Your task to perform on an android device: change keyboard looks Image 0: 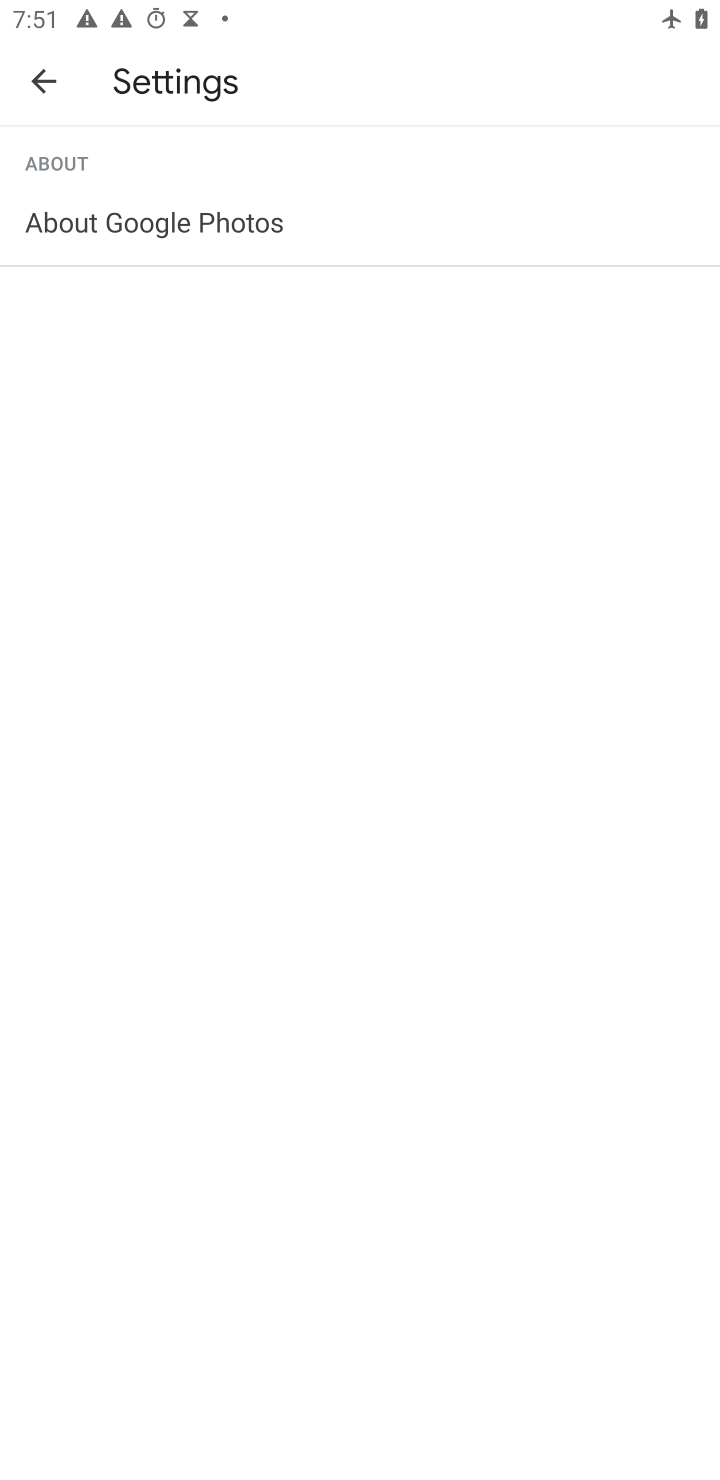
Step 0: press home button
Your task to perform on an android device: change keyboard looks Image 1: 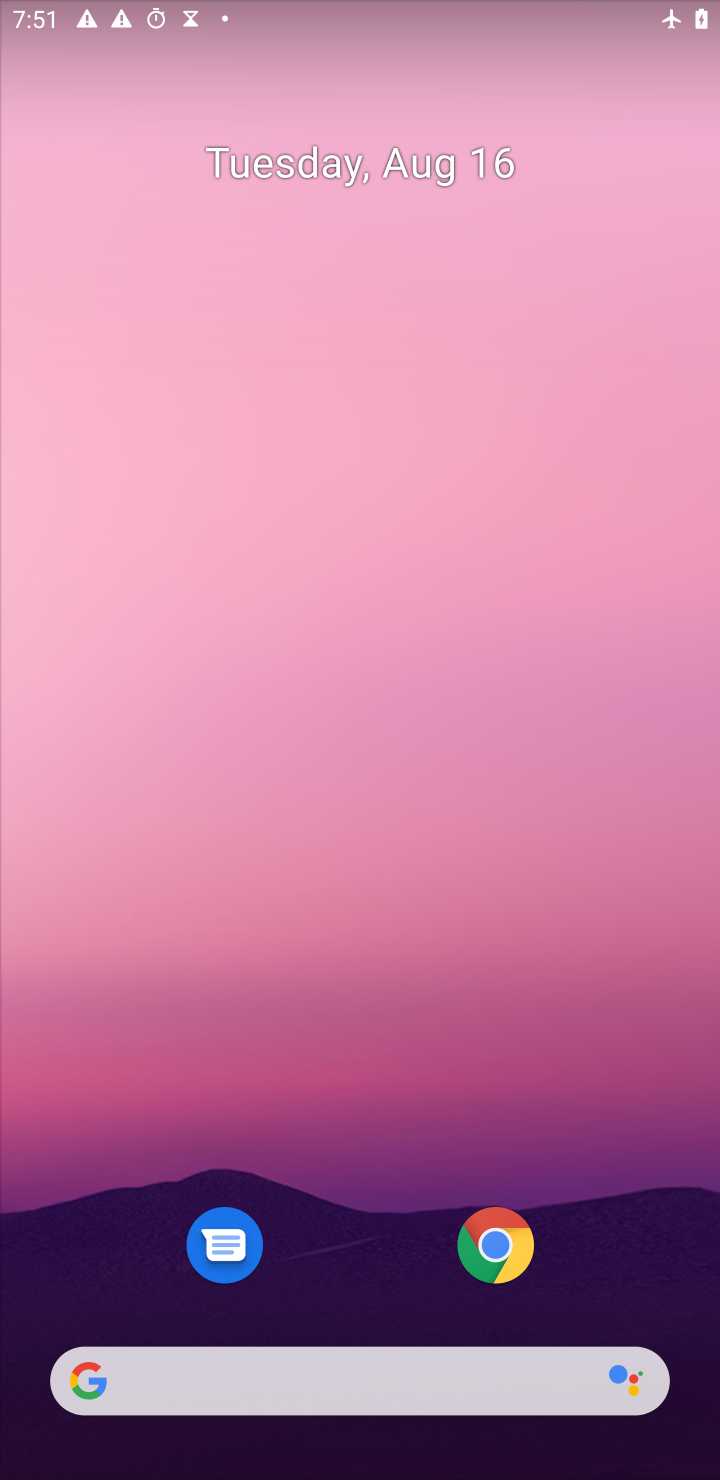
Step 1: click (316, 106)
Your task to perform on an android device: change keyboard looks Image 2: 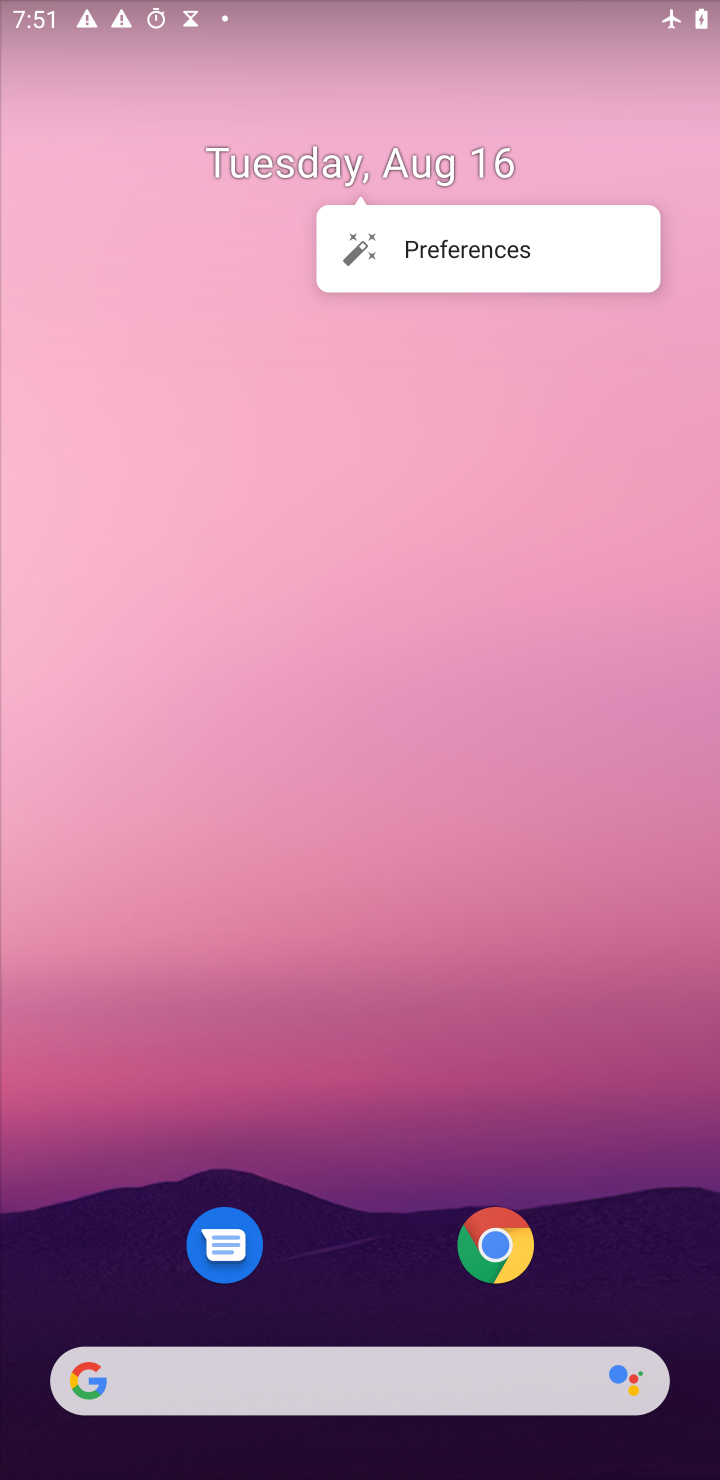
Step 2: drag from (334, 621) to (371, 111)
Your task to perform on an android device: change keyboard looks Image 3: 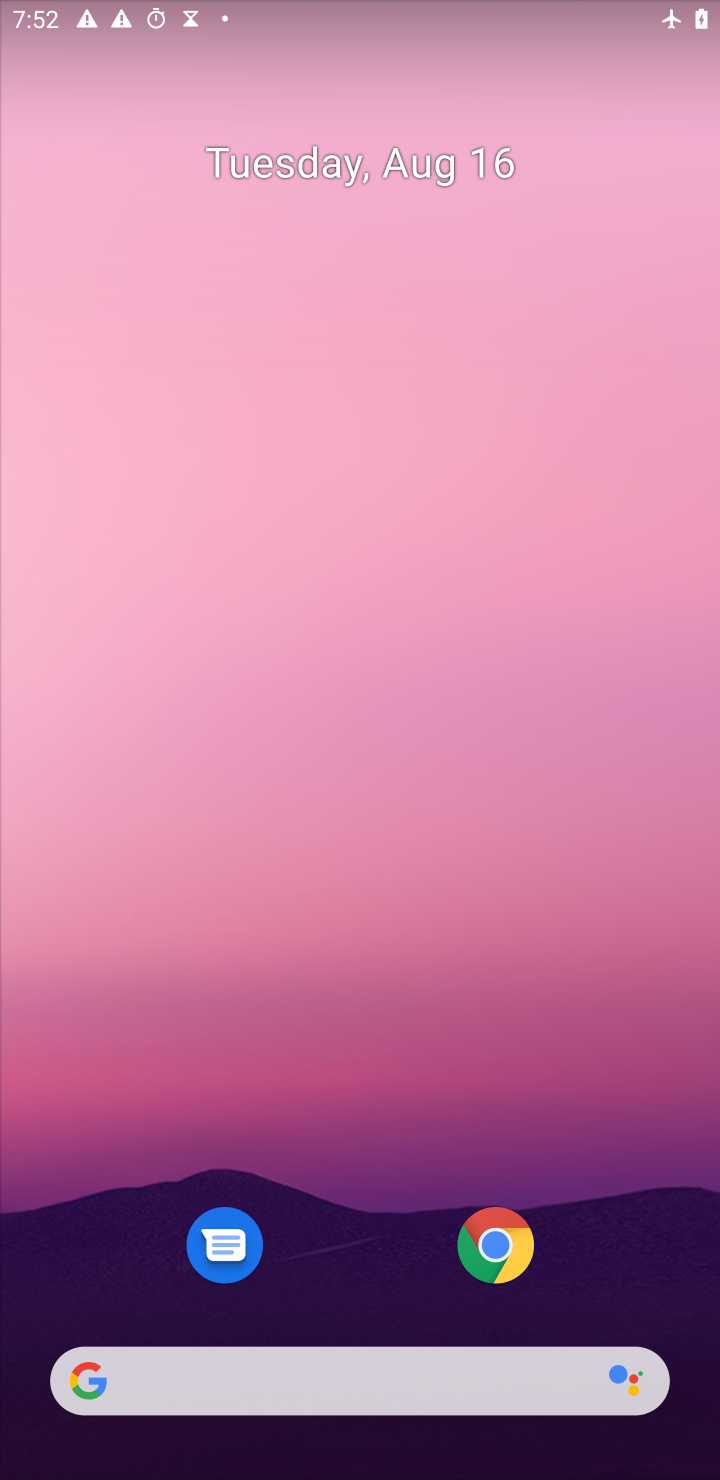
Step 3: click (344, 145)
Your task to perform on an android device: change keyboard looks Image 4: 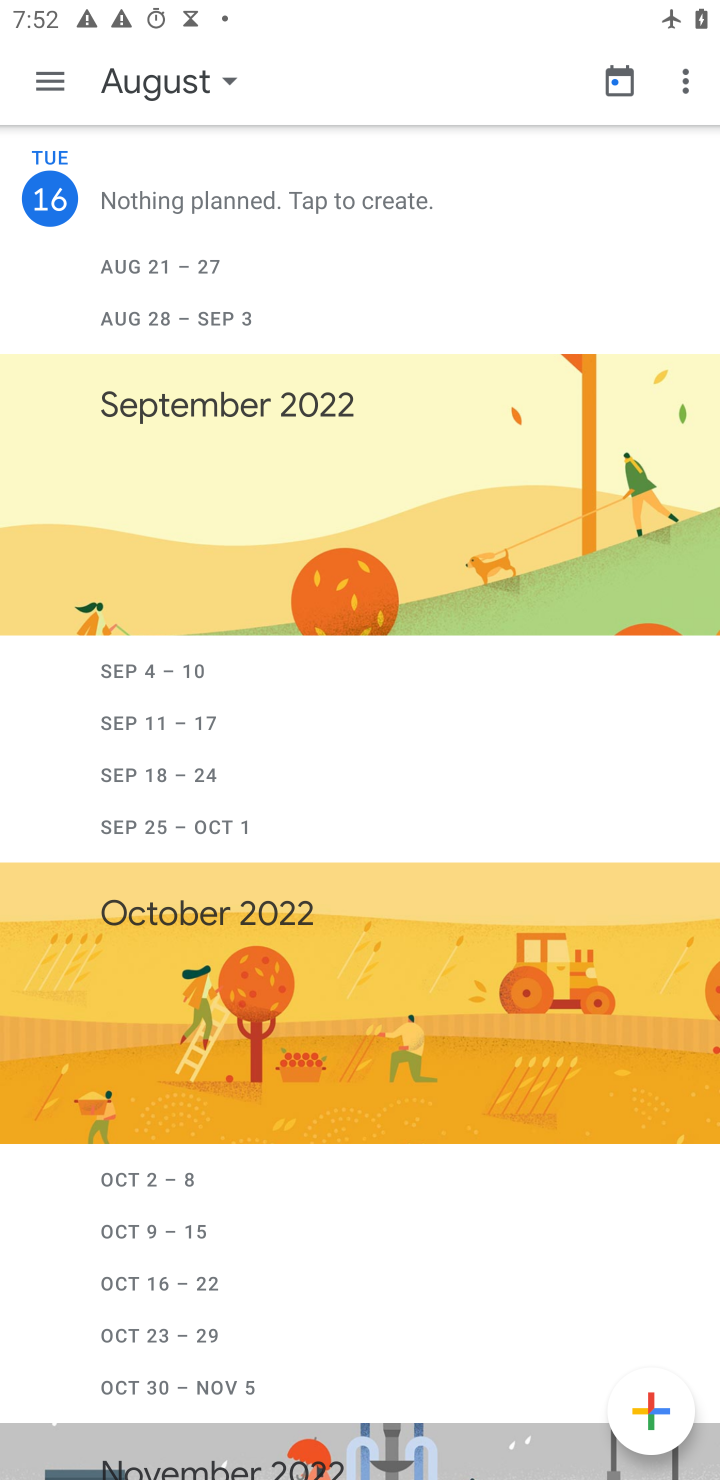
Step 4: press home button
Your task to perform on an android device: change keyboard looks Image 5: 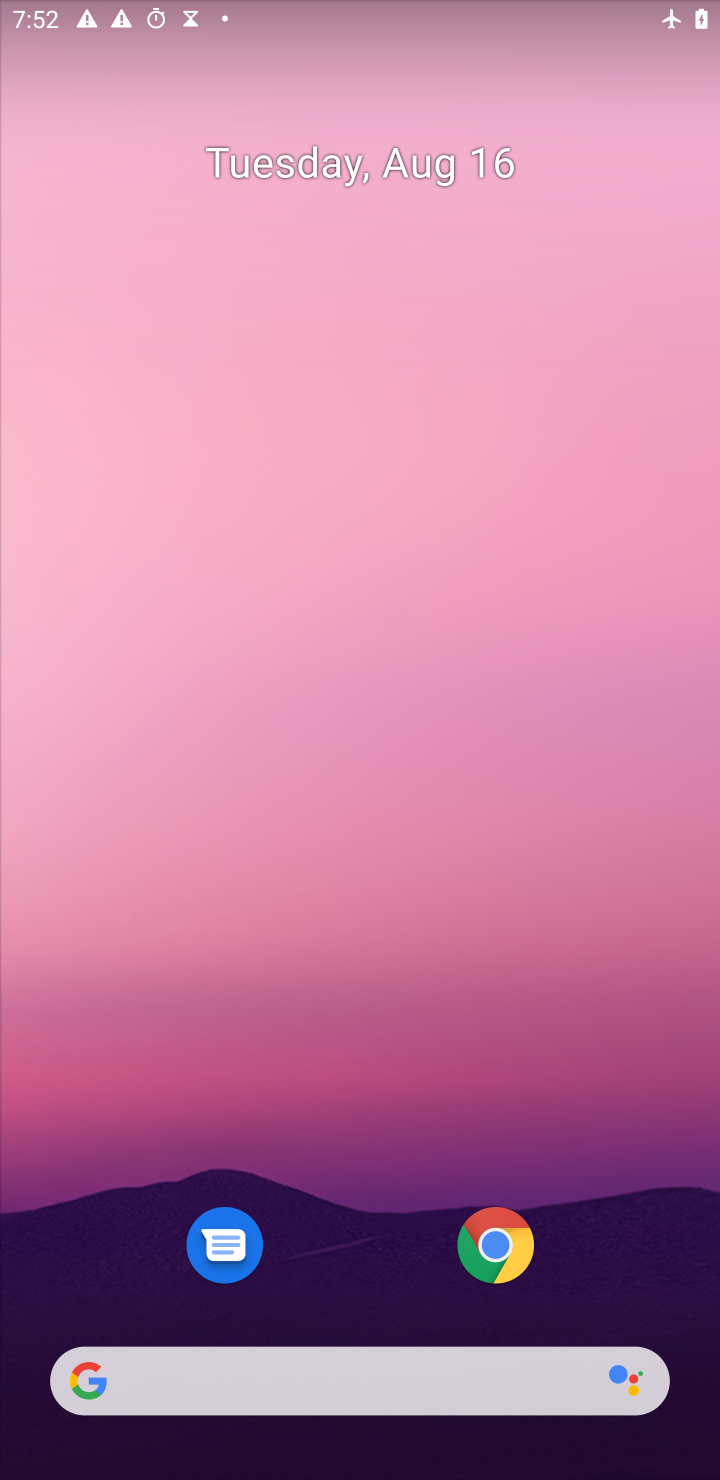
Step 5: drag from (377, 1246) to (391, 25)
Your task to perform on an android device: change keyboard looks Image 6: 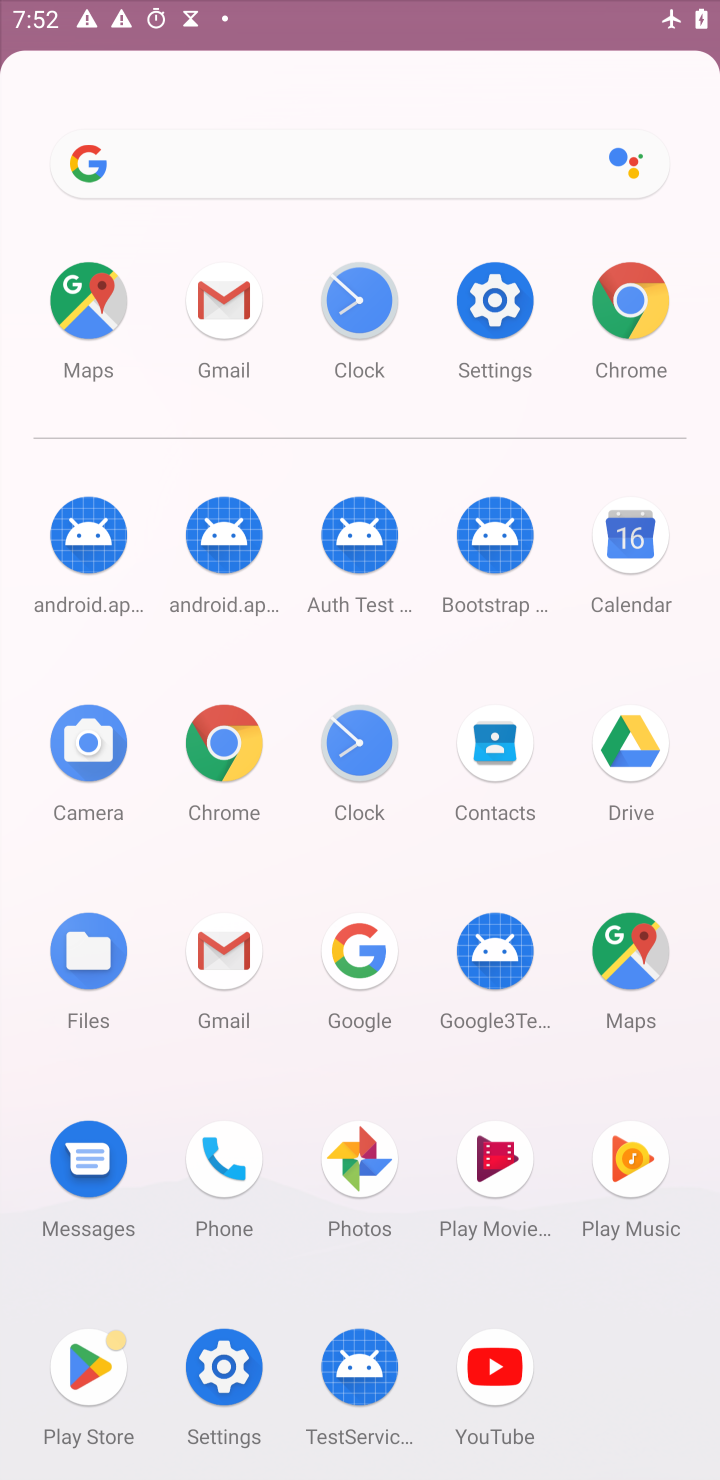
Step 6: click (491, 309)
Your task to perform on an android device: change keyboard looks Image 7: 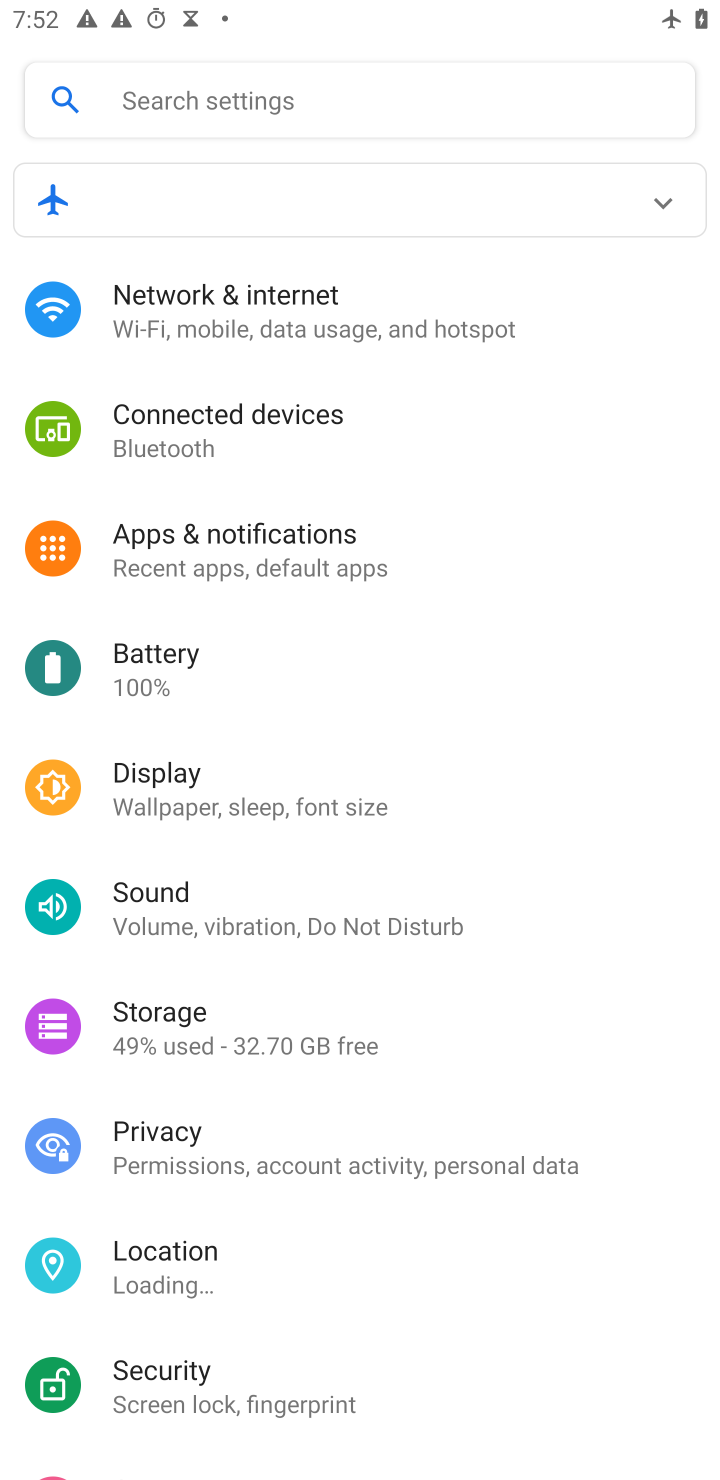
Step 7: drag from (187, 1315) to (173, 226)
Your task to perform on an android device: change keyboard looks Image 8: 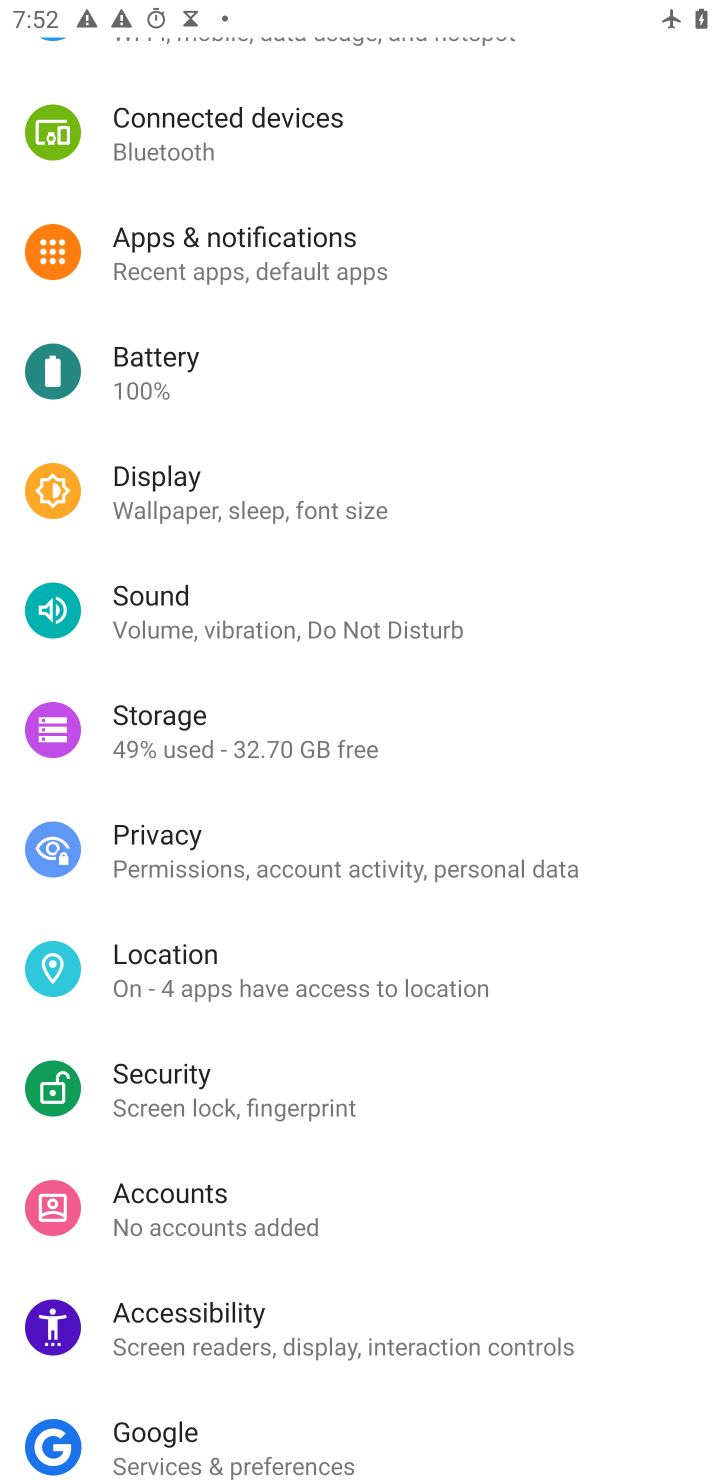
Step 8: drag from (171, 1168) to (181, 607)
Your task to perform on an android device: change keyboard looks Image 9: 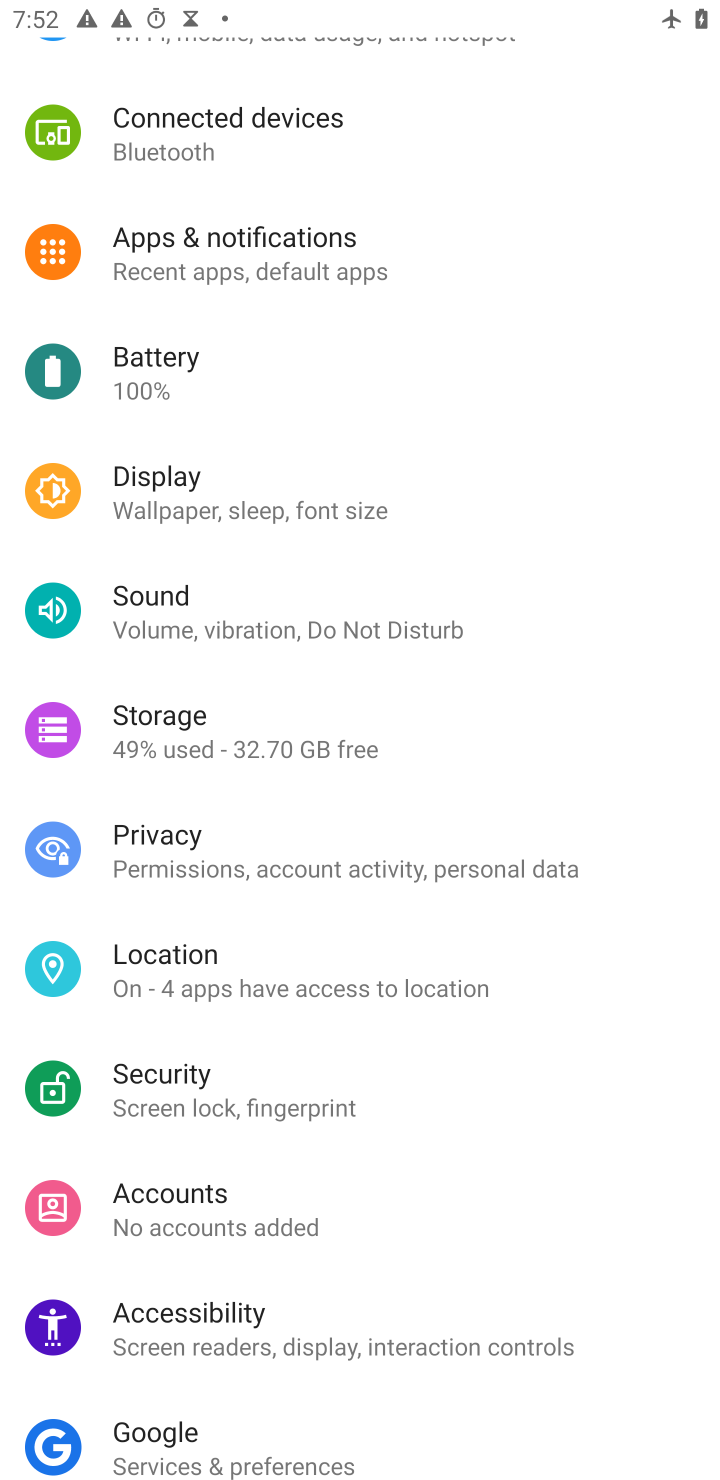
Step 9: drag from (215, 1379) to (219, 311)
Your task to perform on an android device: change keyboard looks Image 10: 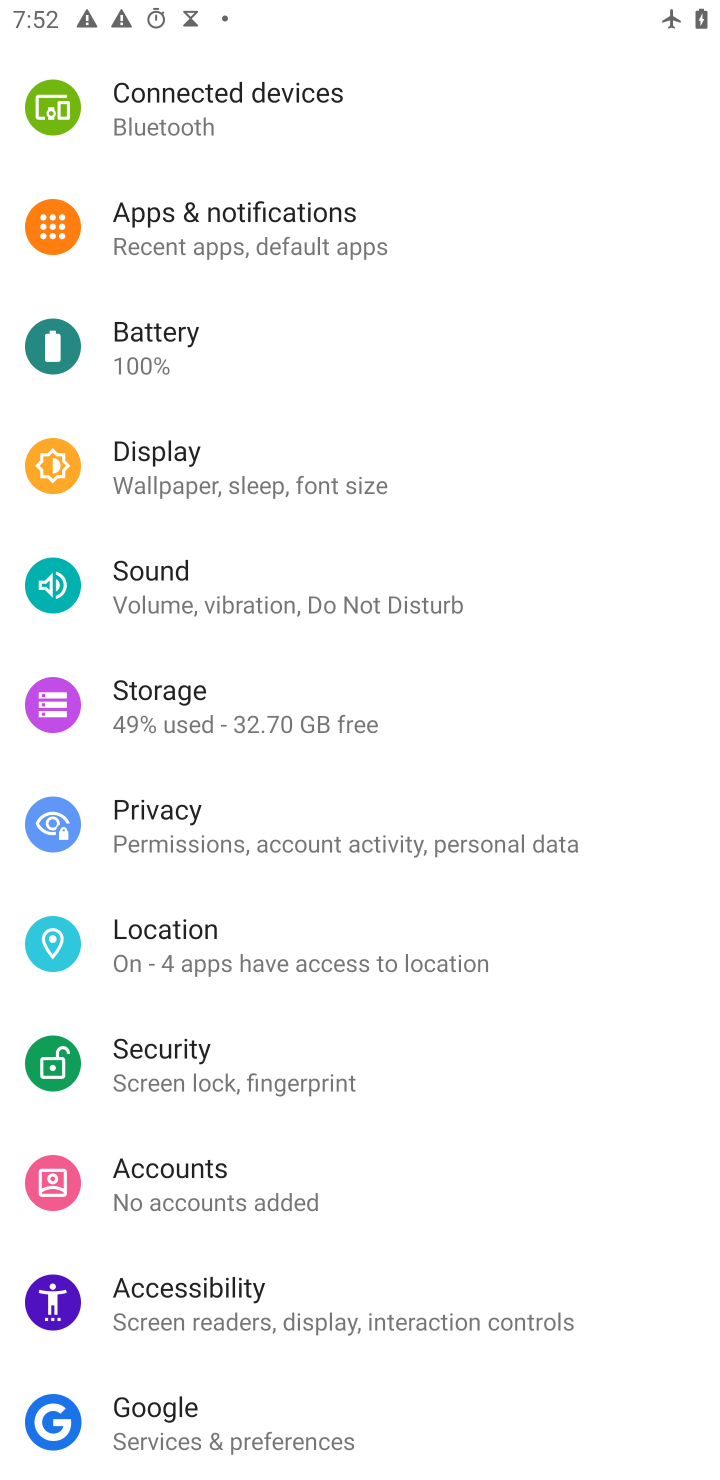
Step 10: drag from (261, 1201) to (342, 315)
Your task to perform on an android device: change keyboard looks Image 11: 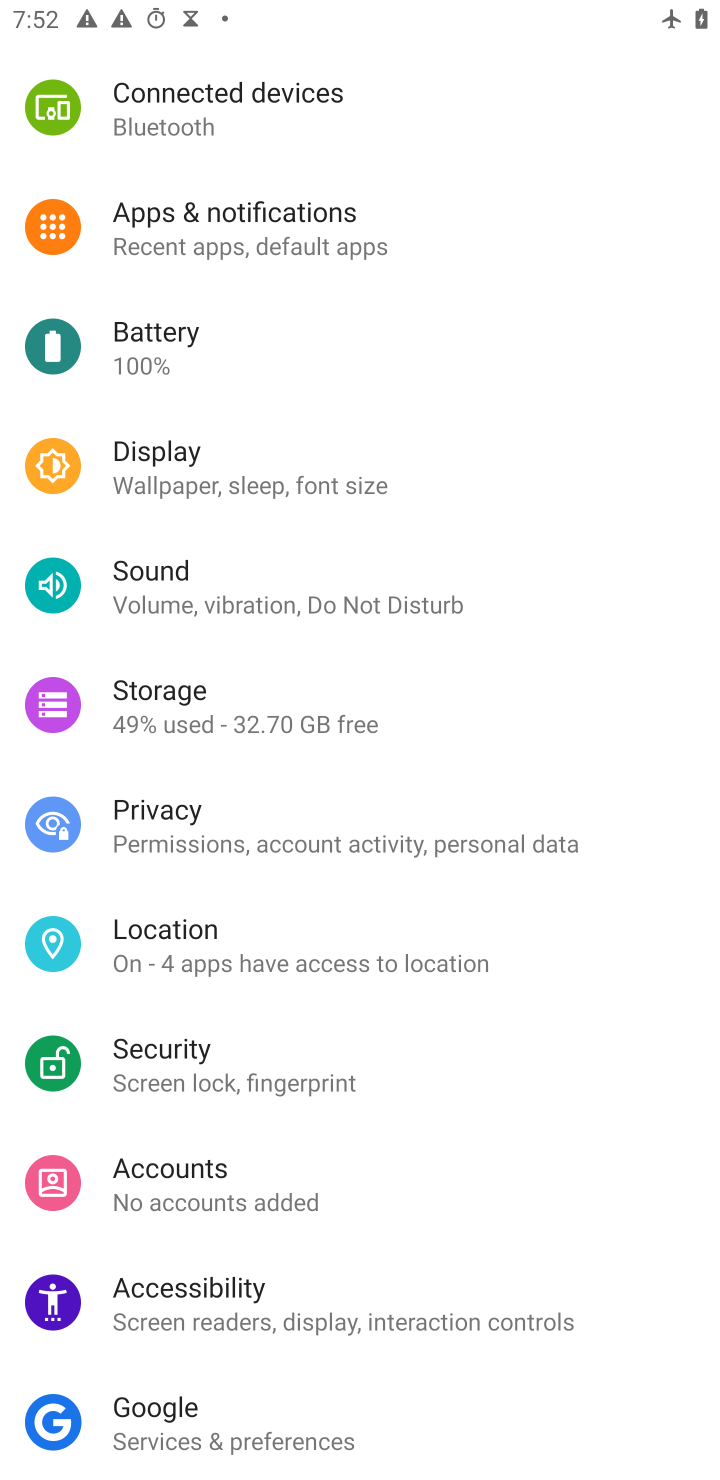
Step 11: drag from (230, 1383) to (283, 455)
Your task to perform on an android device: change keyboard looks Image 12: 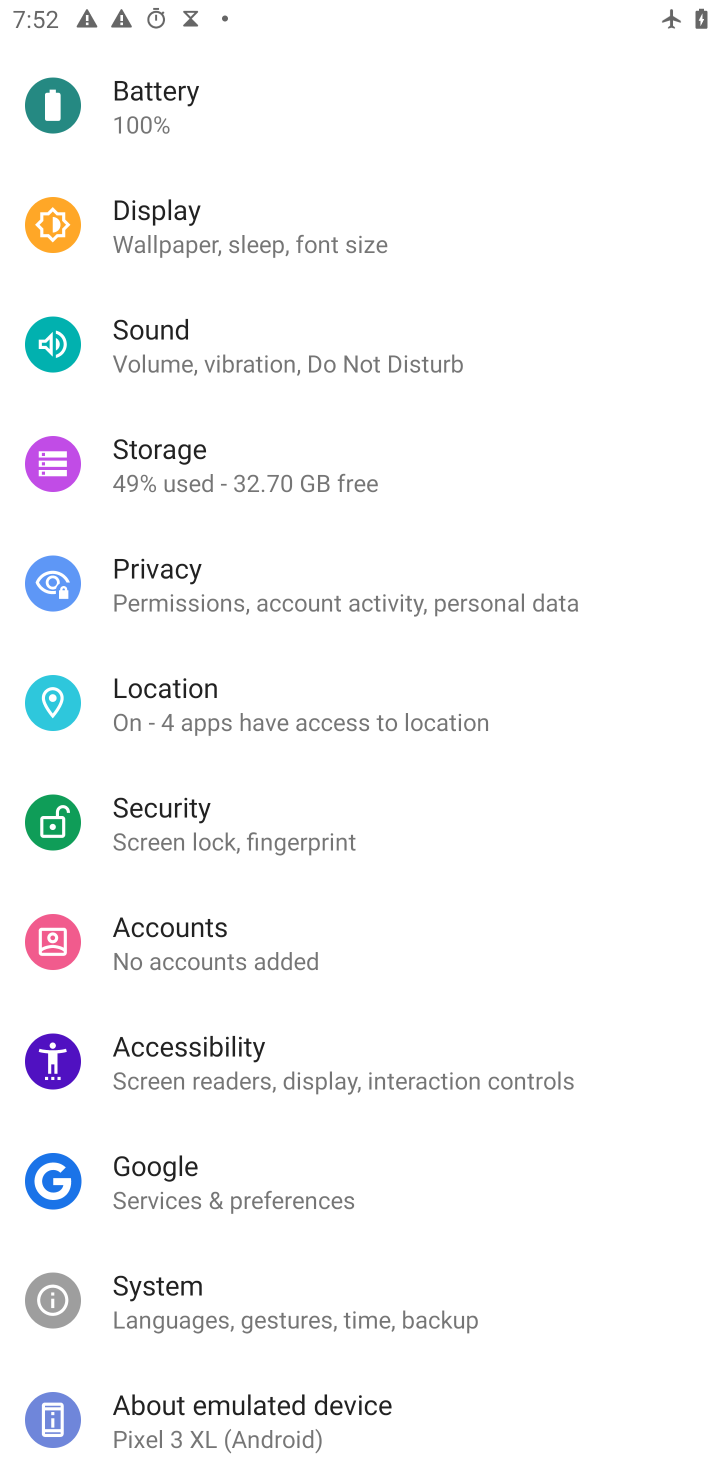
Step 12: click (157, 1312)
Your task to perform on an android device: change keyboard looks Image 13: 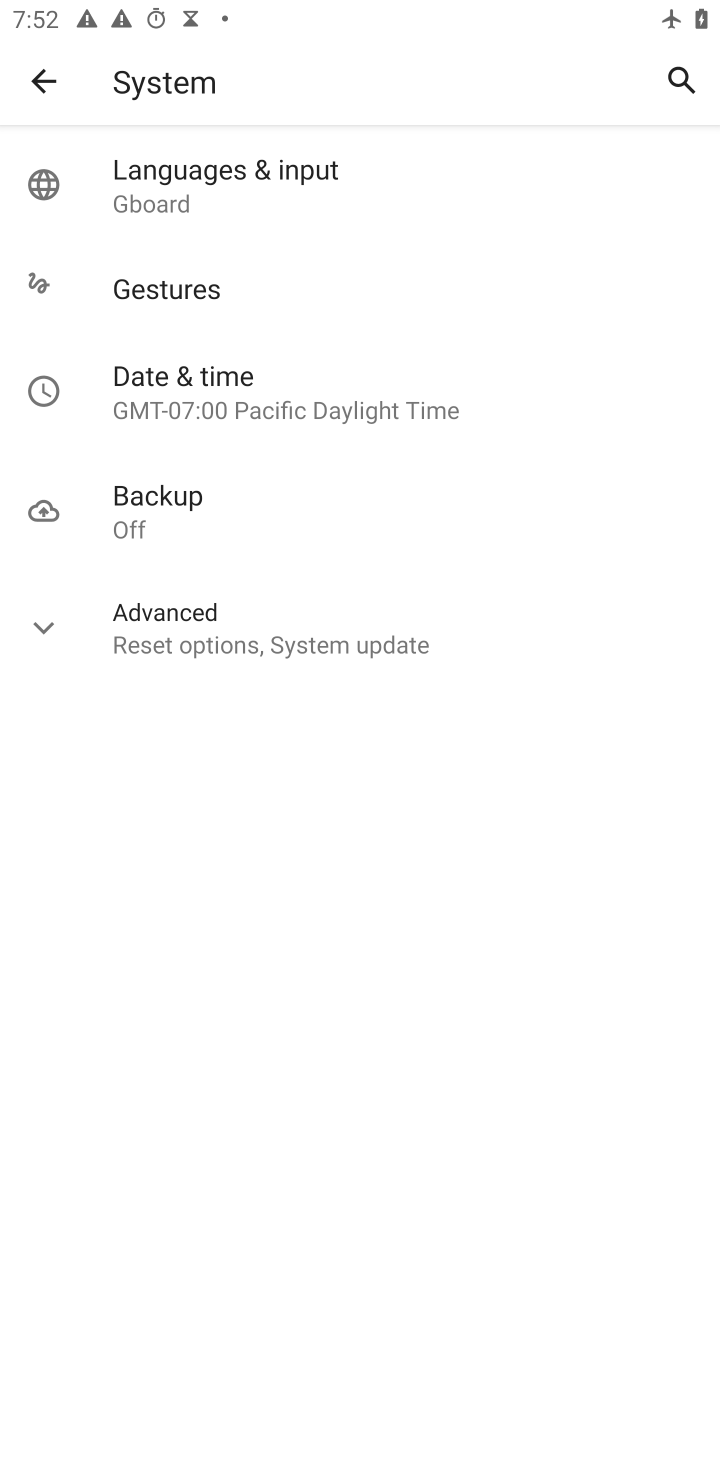
Step 13: click (184, 199)
Your task to perform on an android device: change keyboard looks Image 14: 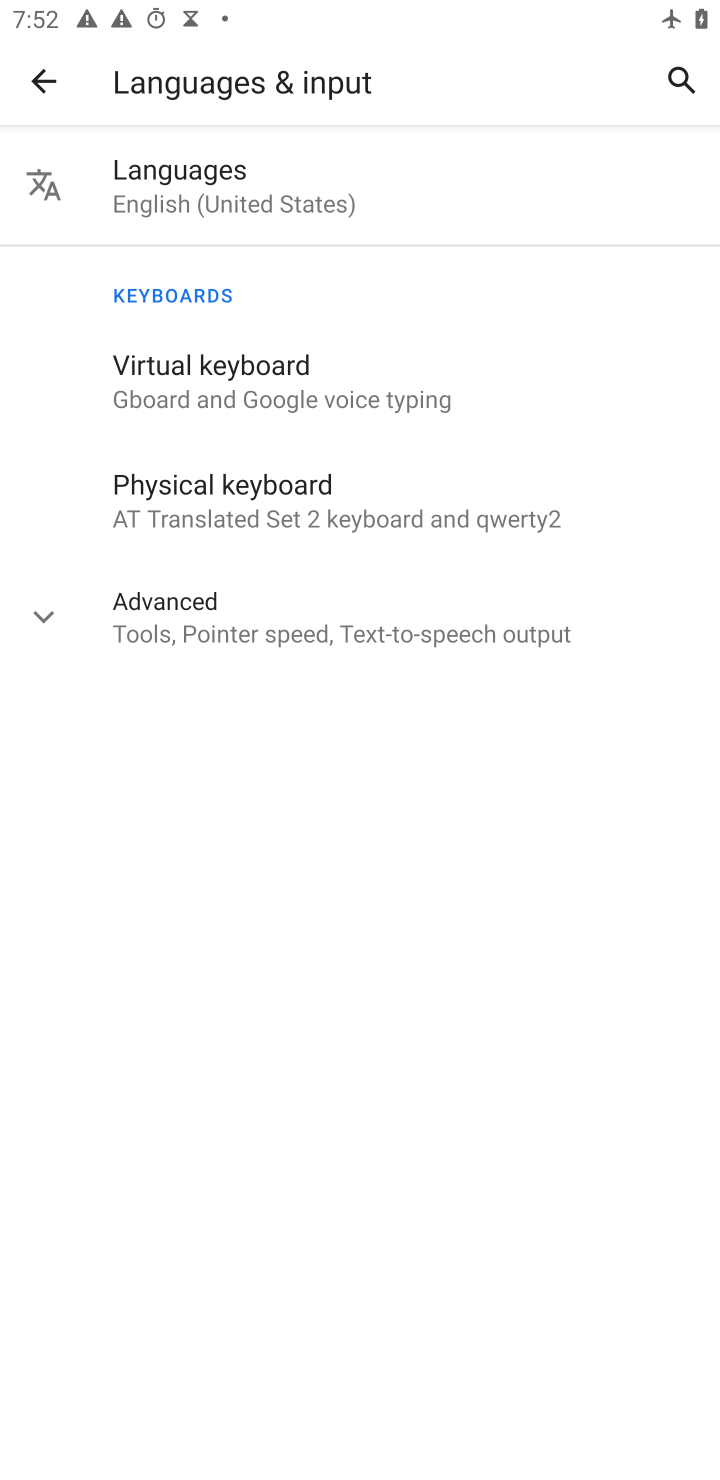
Step 14: click (202, 392)
Your task to perform on an android device: change keyboard looks Image 15: 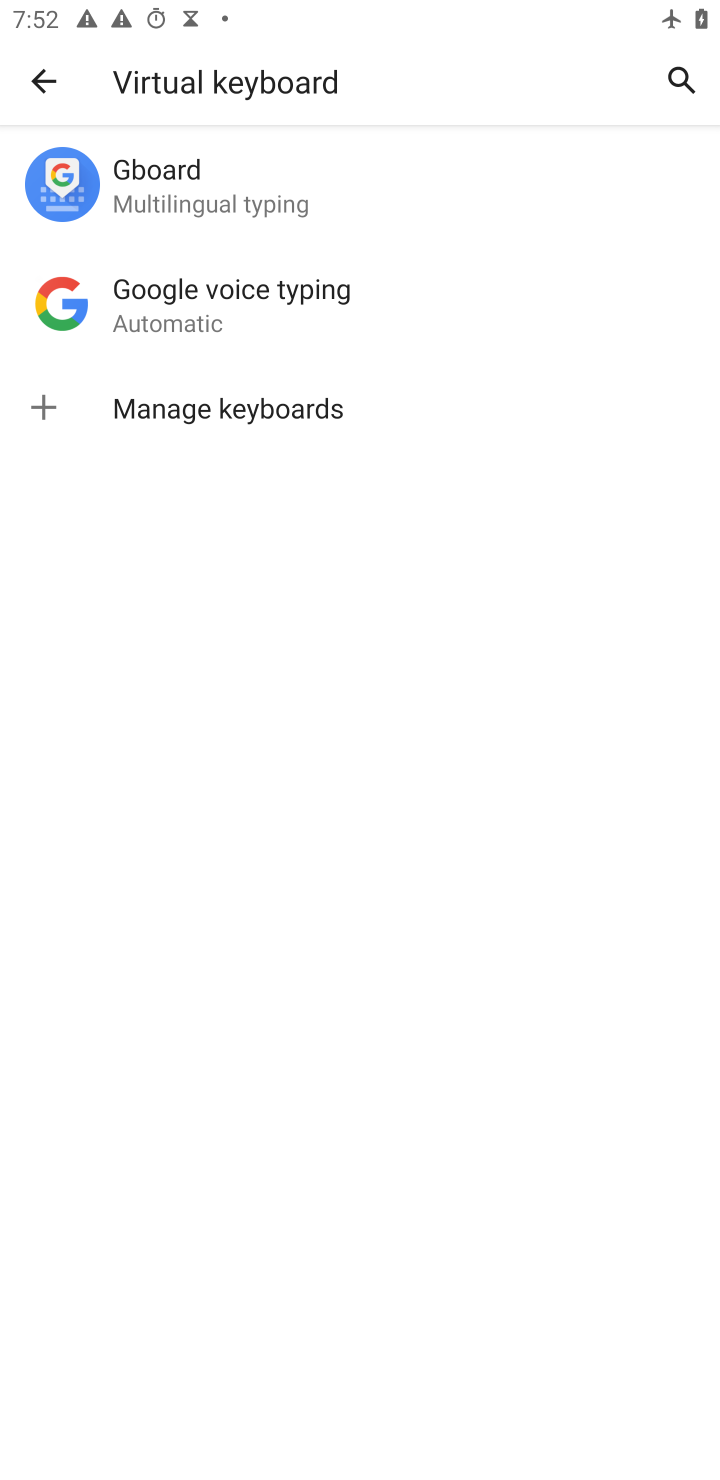
Step 15: click (128, 199)
Your task to perform on an android device: change keyboard looks Image 16: 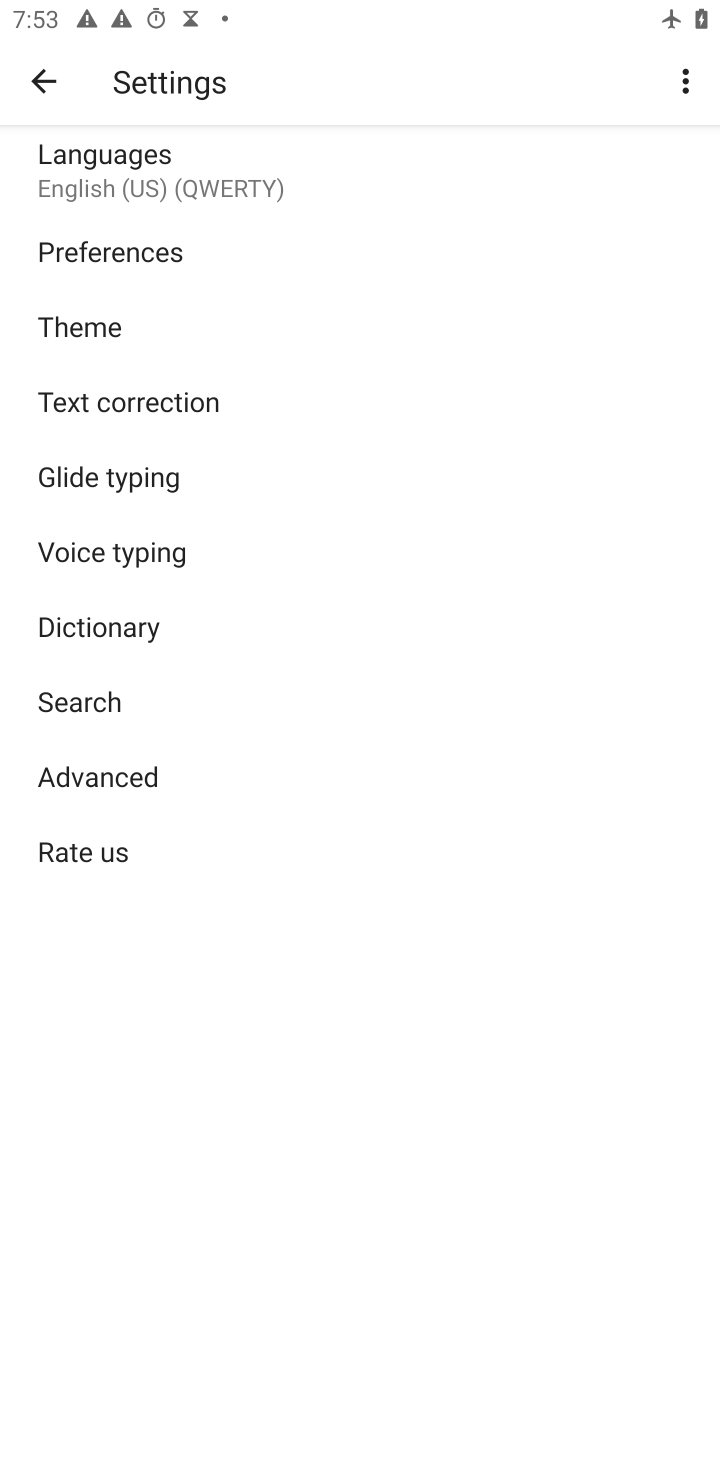
Step 16: click (71, 322)
Your task to perform on an android device: change keyboard looks Image 17: 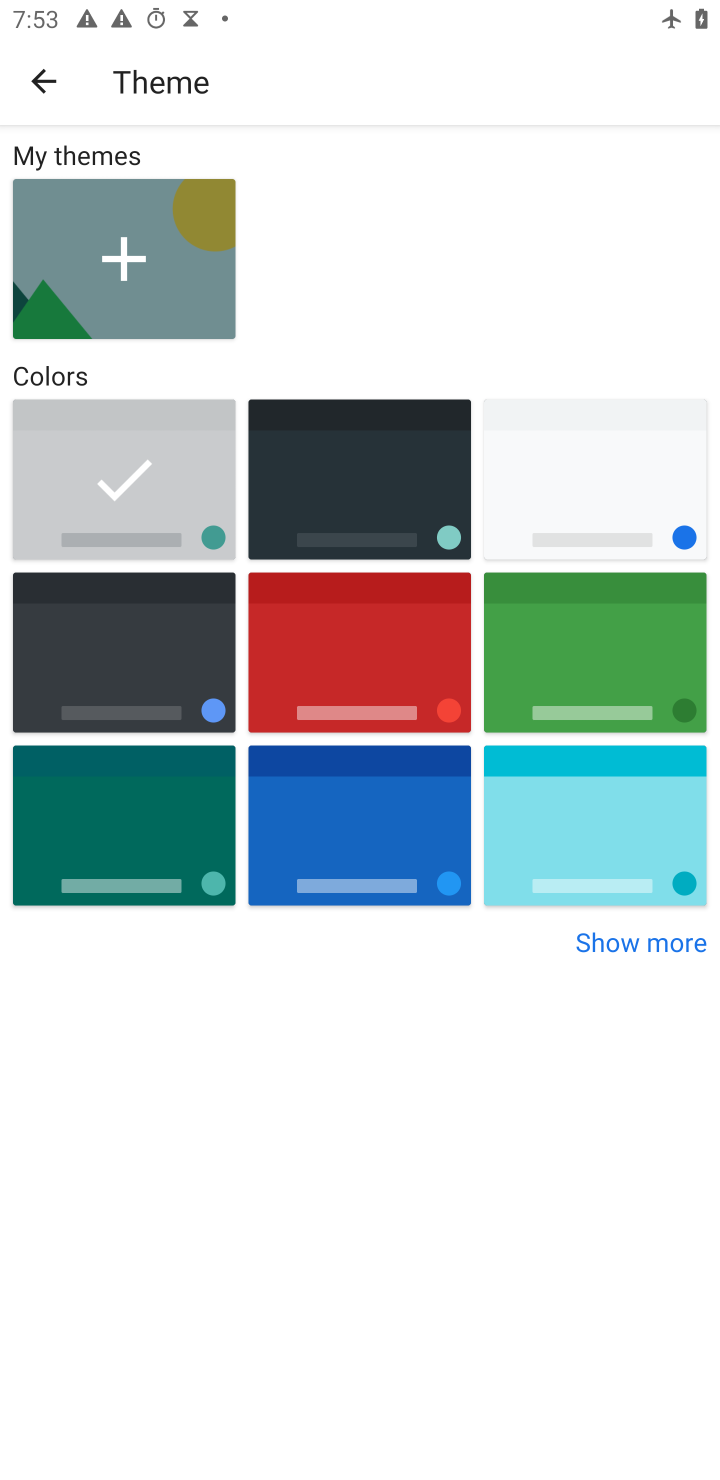
Step 17: click (343, 635)
Your task to perform on an android device: change keyboard looks Image 18: 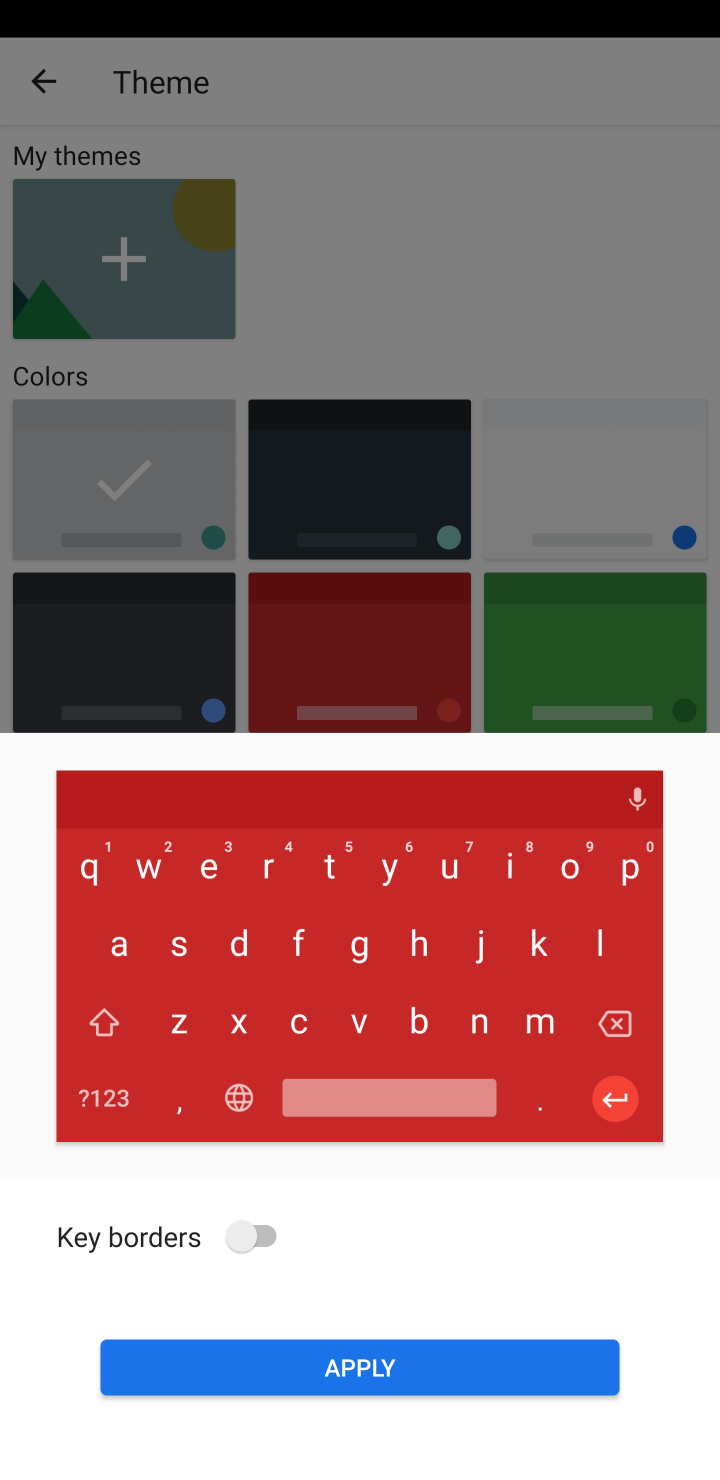
Step 18: click (332, 1363)
Your task to perform on an android device: change keyboard looks Image 19: 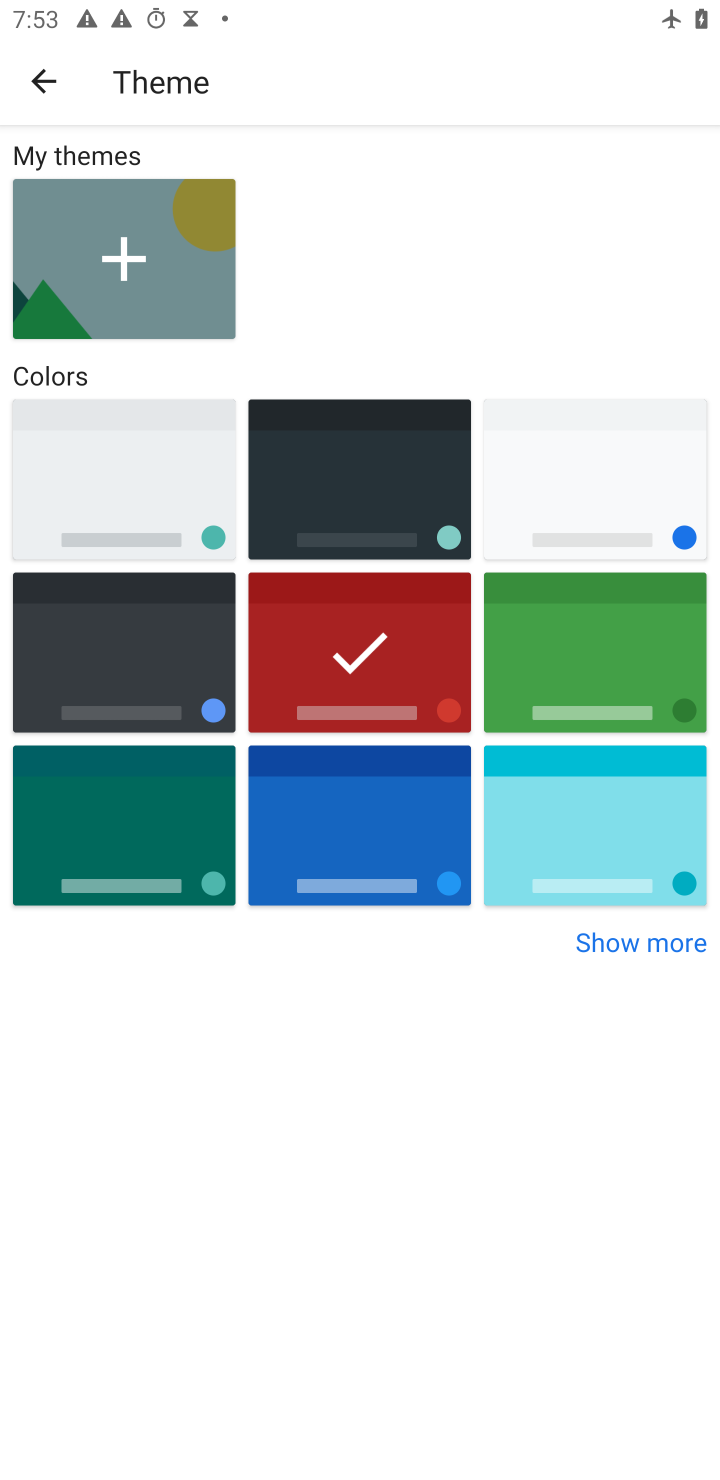
Step 19: task complete